Your task to perform on an android device: Open network settings Image 0: 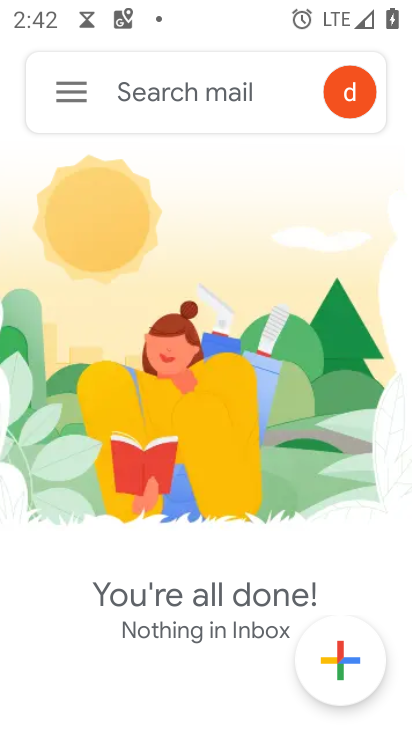
Step 0: press back button
Your task to perform on an android device: Open network settings Image 1: 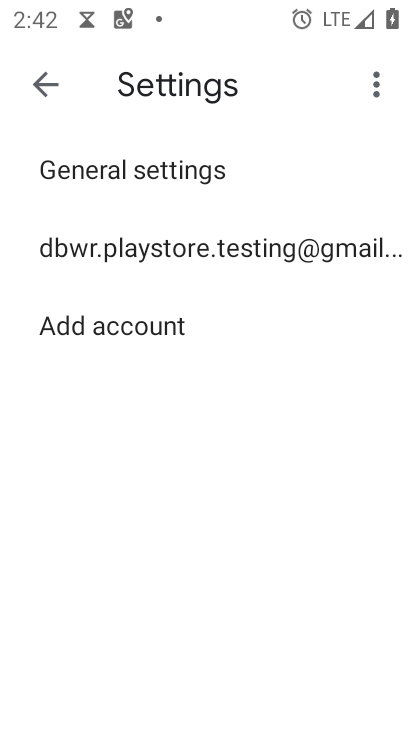
Step 1: press home button
Your task to perform on an android device: Open network settings Image 2: 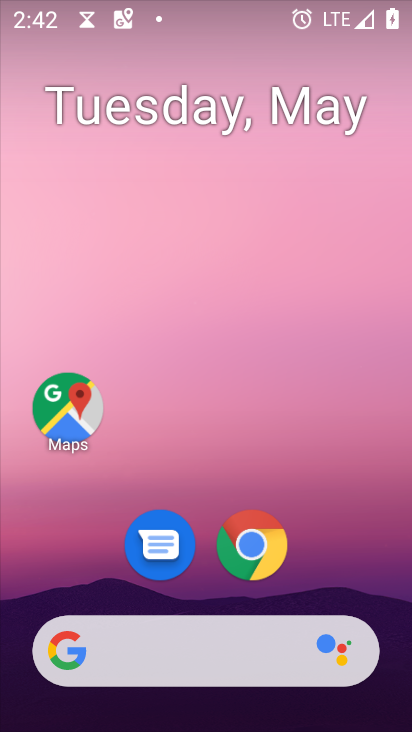
Step 2: drag from (348, 552) to (243, 85)
Your task to perform on an android device: Open network settings Image 3: 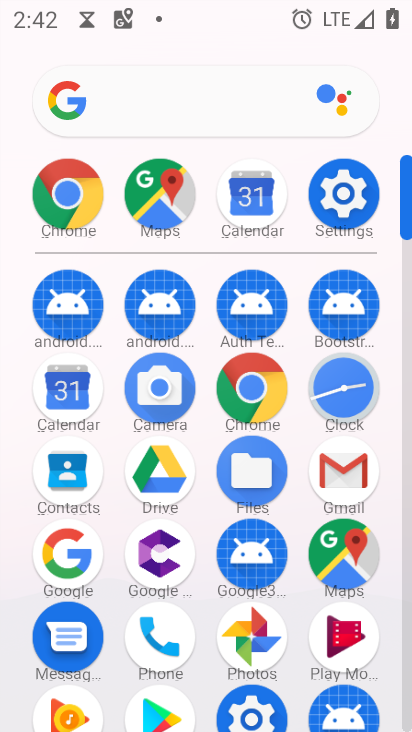
Step 3: drag from (12, 584) to (0, 270)
Your task to perform on an android device: Open network settings Image 4: 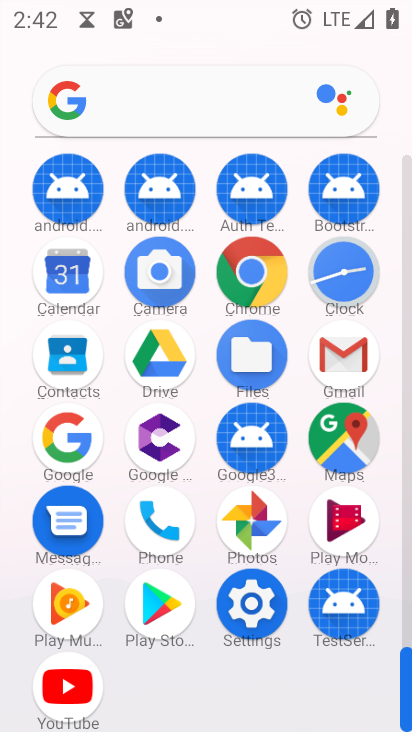
Step 4: click (248, 600)
Your task to perform on an android device: Open network settings Image 5: 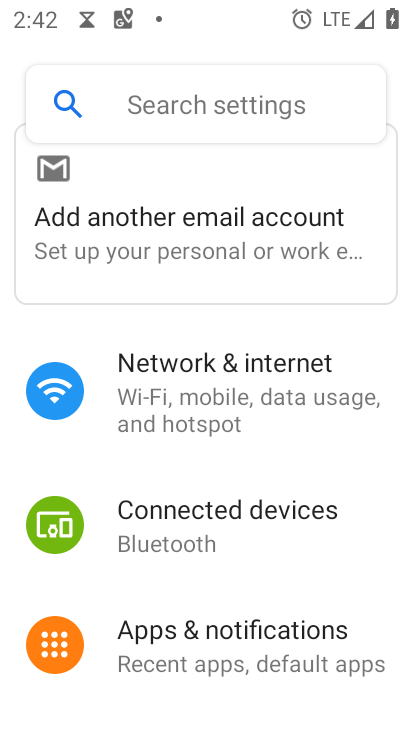
Step 5: click (194, 412)
Your task to perform on an android device: Open network settings Image 6: 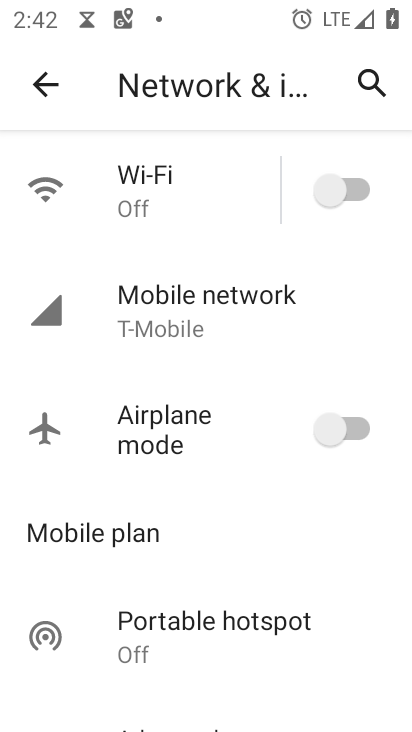
Step 6: drag from (242, 560) to (257, 222)
Your task to perform on an android device: Open network settings Image 7: 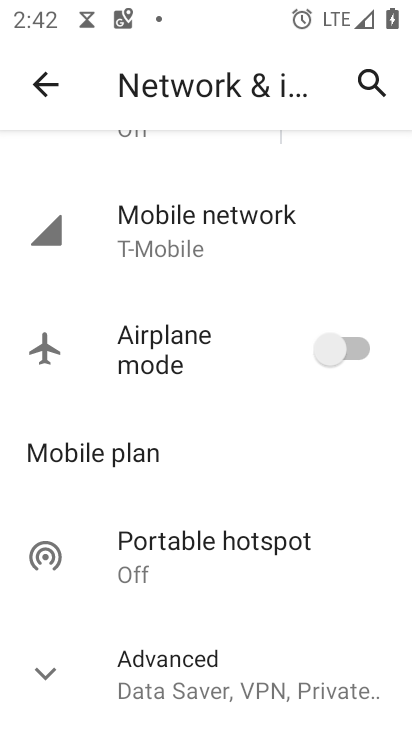
Step 7: drag from (242, 519) to (257, 132)
Your task to perform on an android device: Open network settings Image 8: 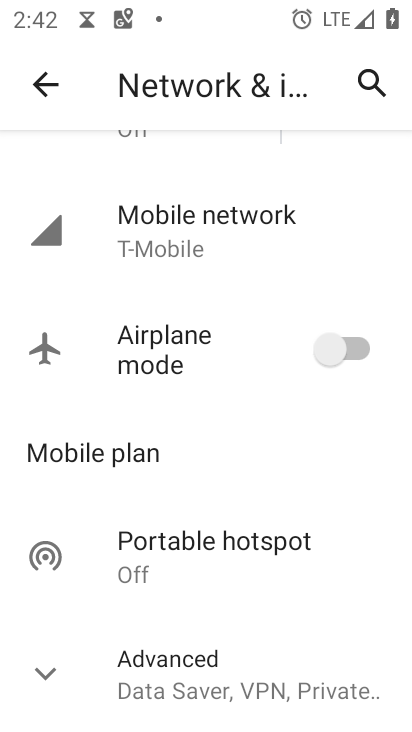
Step 8: click (43, 663)
Your task to perform on an android device: Open network settings Image 9: 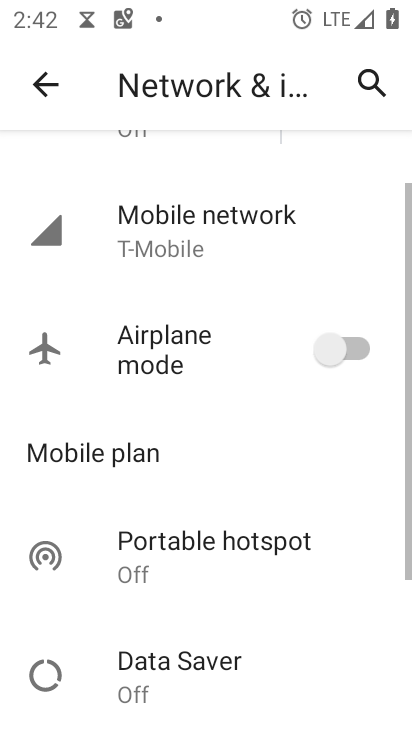
Step 9: task complete